Your task to perform on an android device: What's on my calendar today? Image 0: 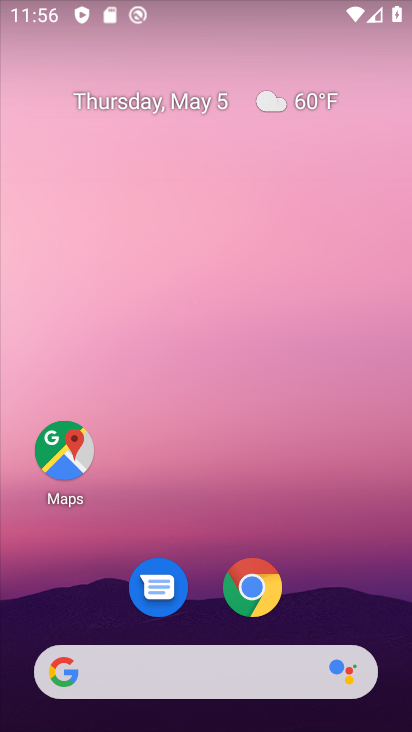
Step 0: drag from (375, 291) to (369, 255)
Your task to perform on an android device: What's on my calendar today? Image 1: 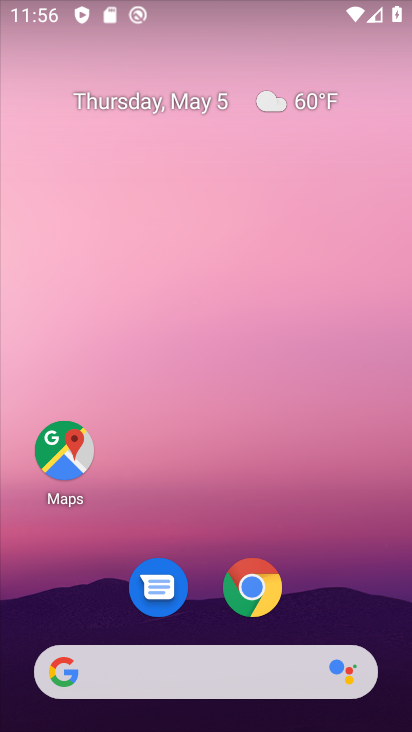
Step 1: drag from (376, 477) to (361, 198)
Your task to perform on an android device: What's on my calendar today? Image 2: 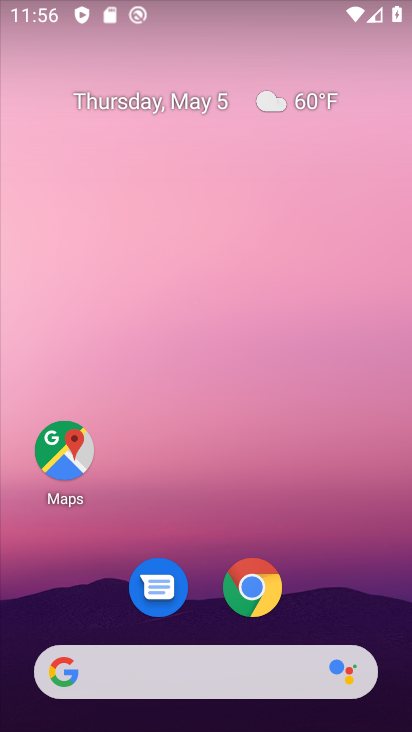
Step 2: drag from (389, 680) to (374, 340)
Your task to perform on an android device: What's on my calendar today? Image 3: 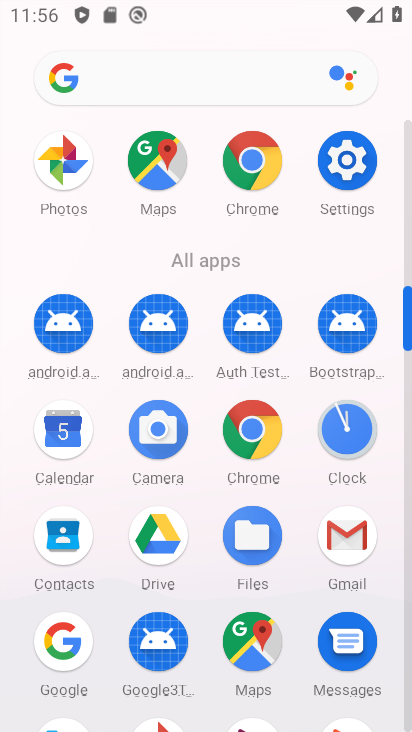
Step 3: click (75, 446)
Your task to perform on an android device: What's on my calendar today? Image 4: 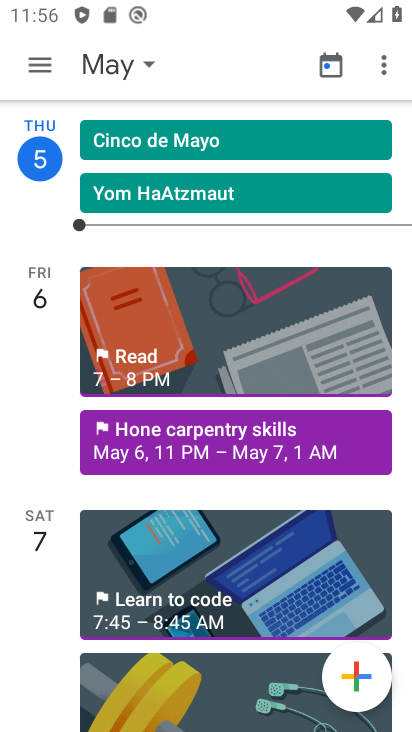
Step 4: click (145, 65)
Your task to perform on an android device: What's on my calendar today? Image 5: 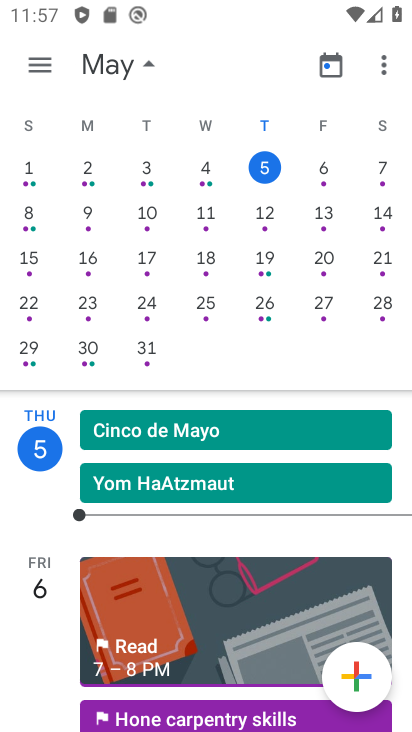
Step 5: click (261, 169)
Your task to perform on an android device: What's on my calendar today? Image 6: 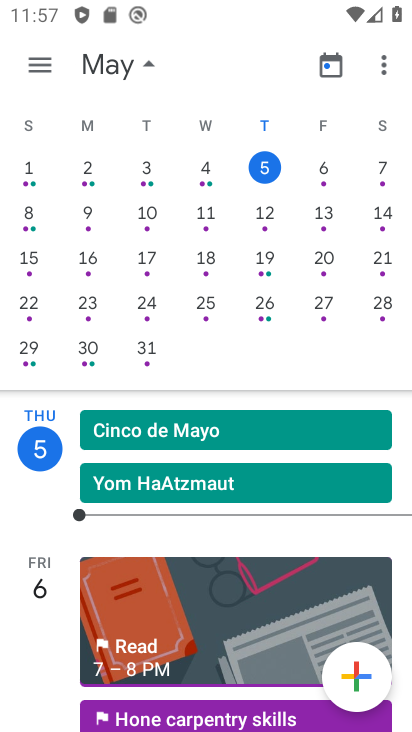
Step 6: task complete